Your task to perform on an android device: Do I have any events today? Image 0: 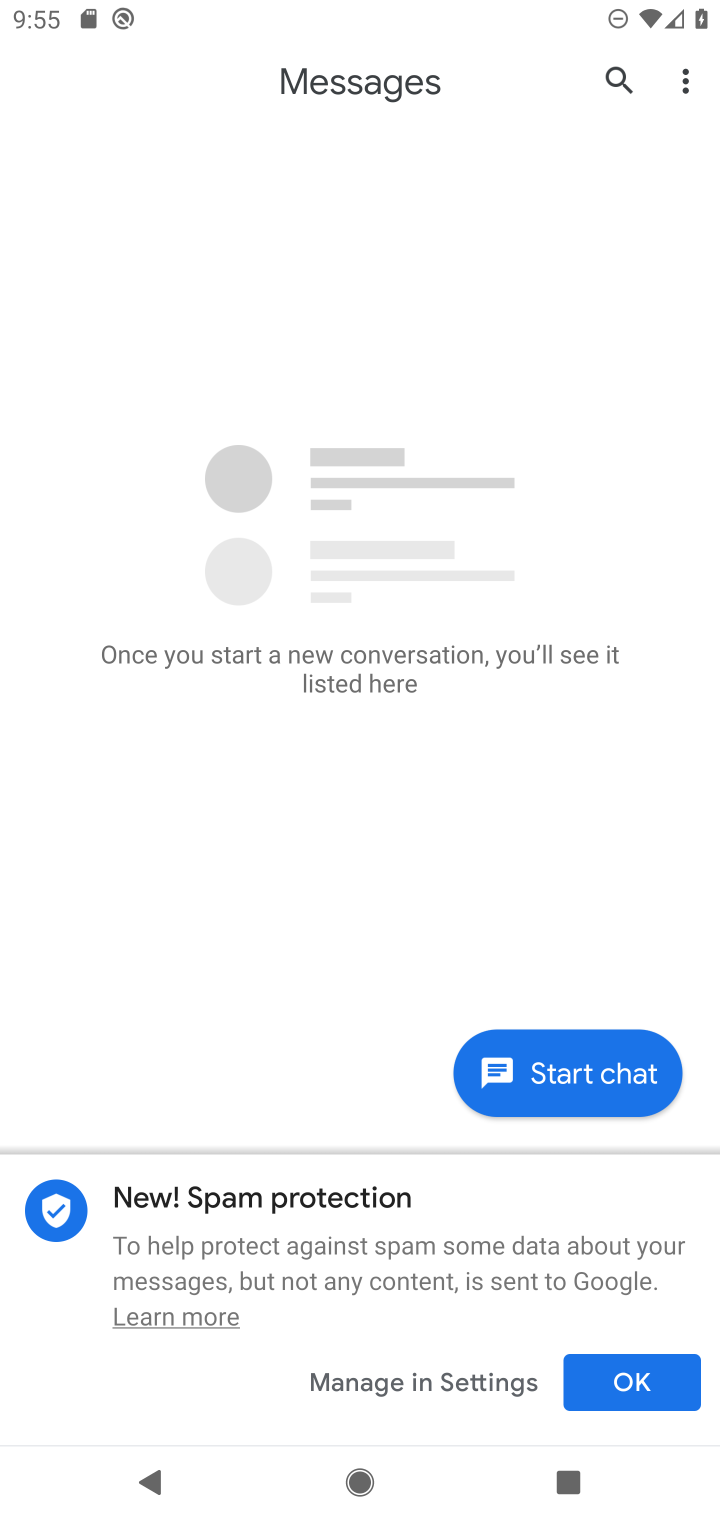
Step 0: press home button
Your task to perform on an android device: Do I have any events today? Image 1: 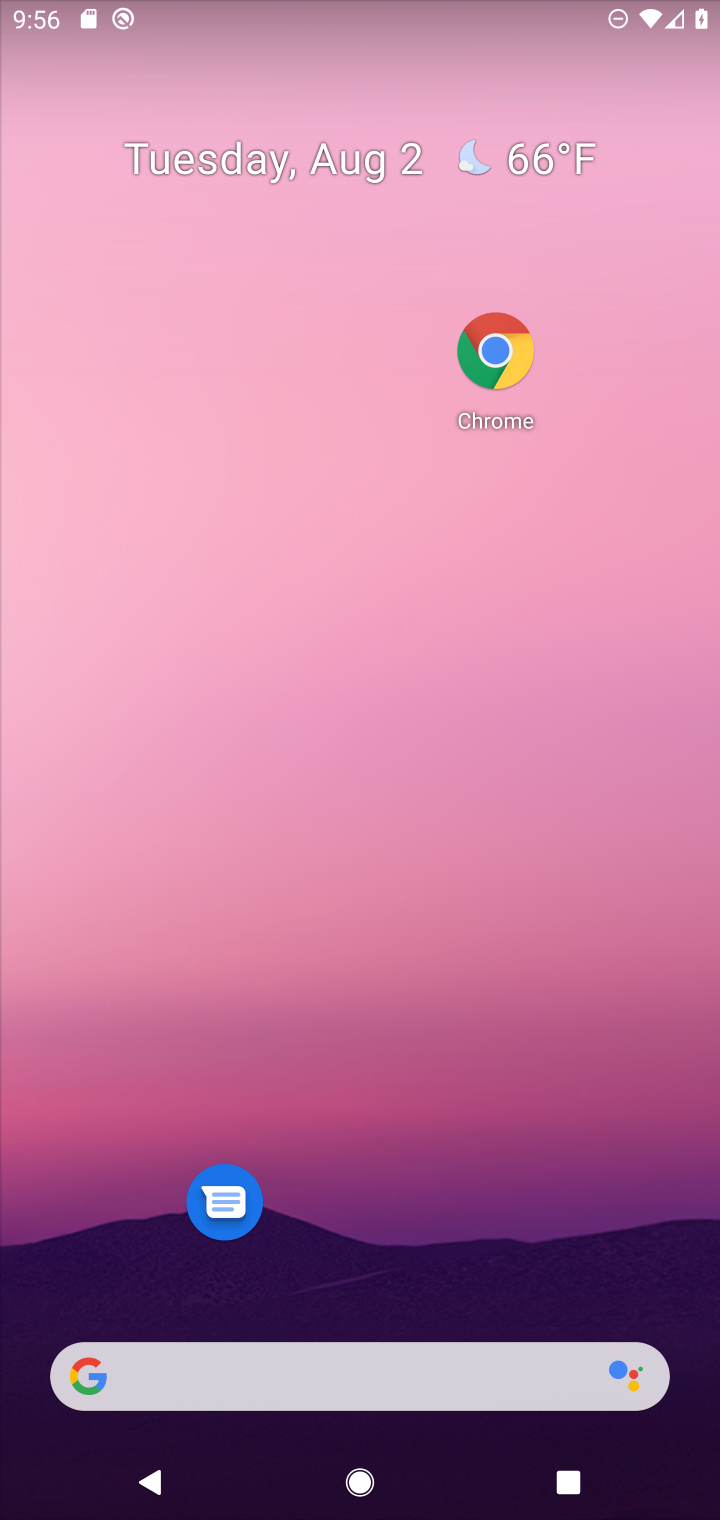
Step 1: drag from (383, 1290) to (472, 7)
Your task to perform on an android device: Do I have any events today? Image 2: 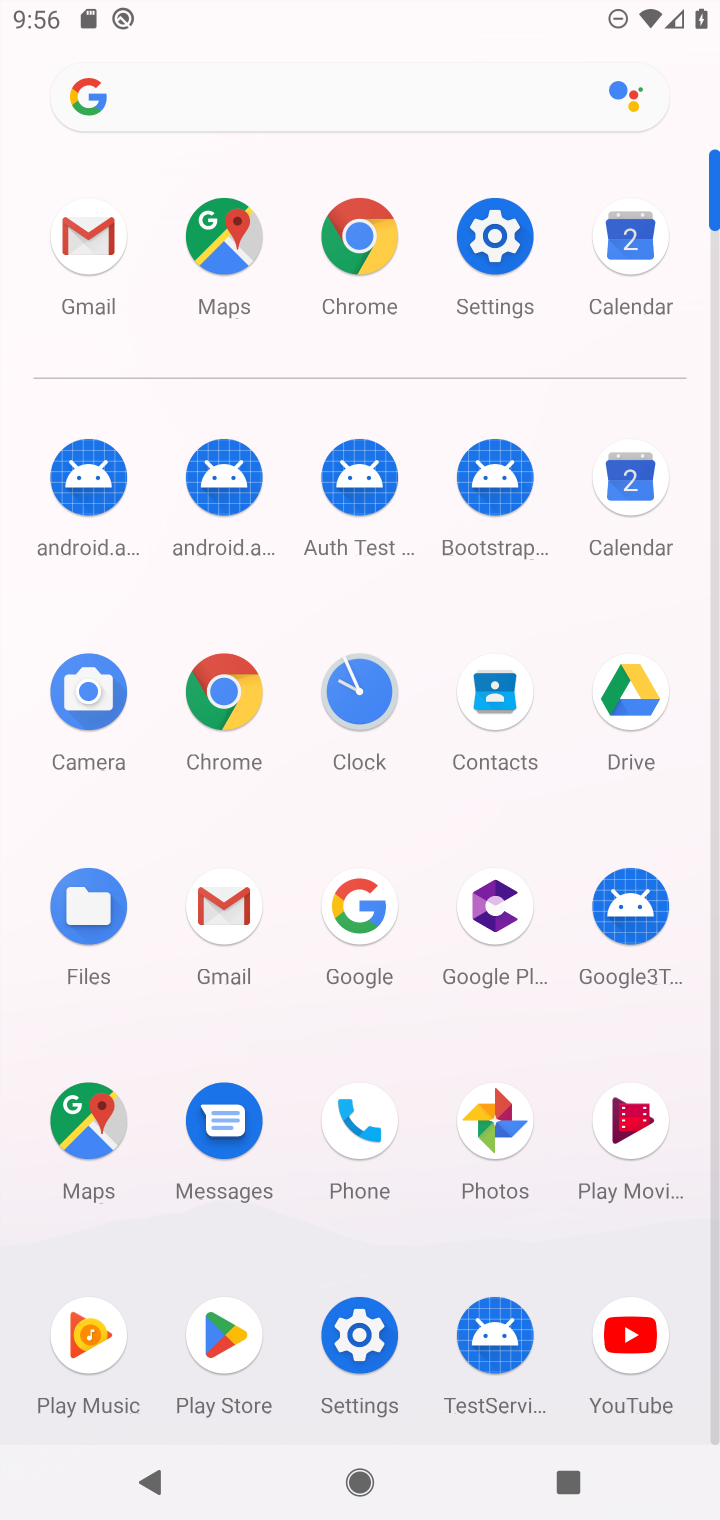
Step 2: click (631, 252)
Your task to perform on an android device: Do I have any events today? Image 3: 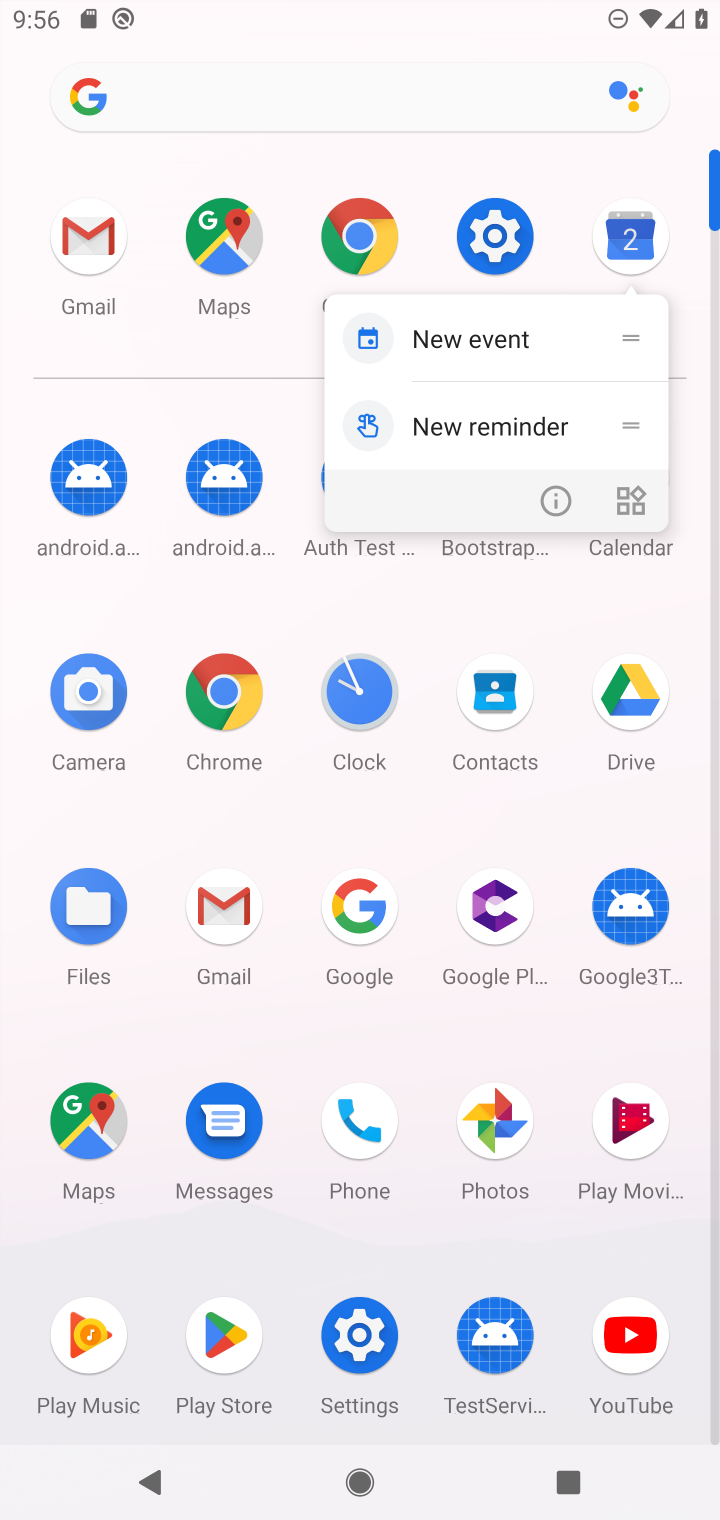
Step 3: click (631, 247)
Your task to perform on an android device: Do I have any events today? Image 4: 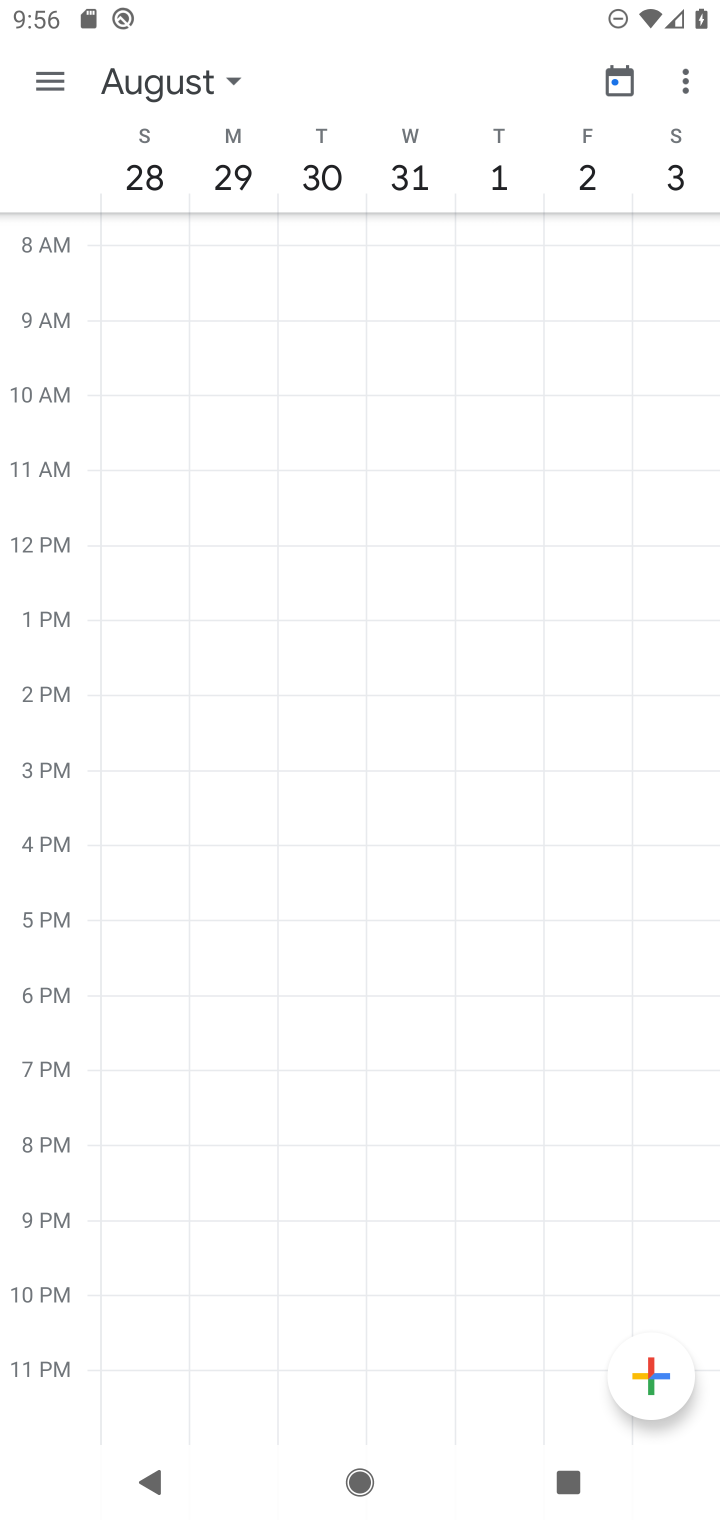
Step 4: click (228, 85)
Your task to perform on an android device: Do I have any events today? Image 5: 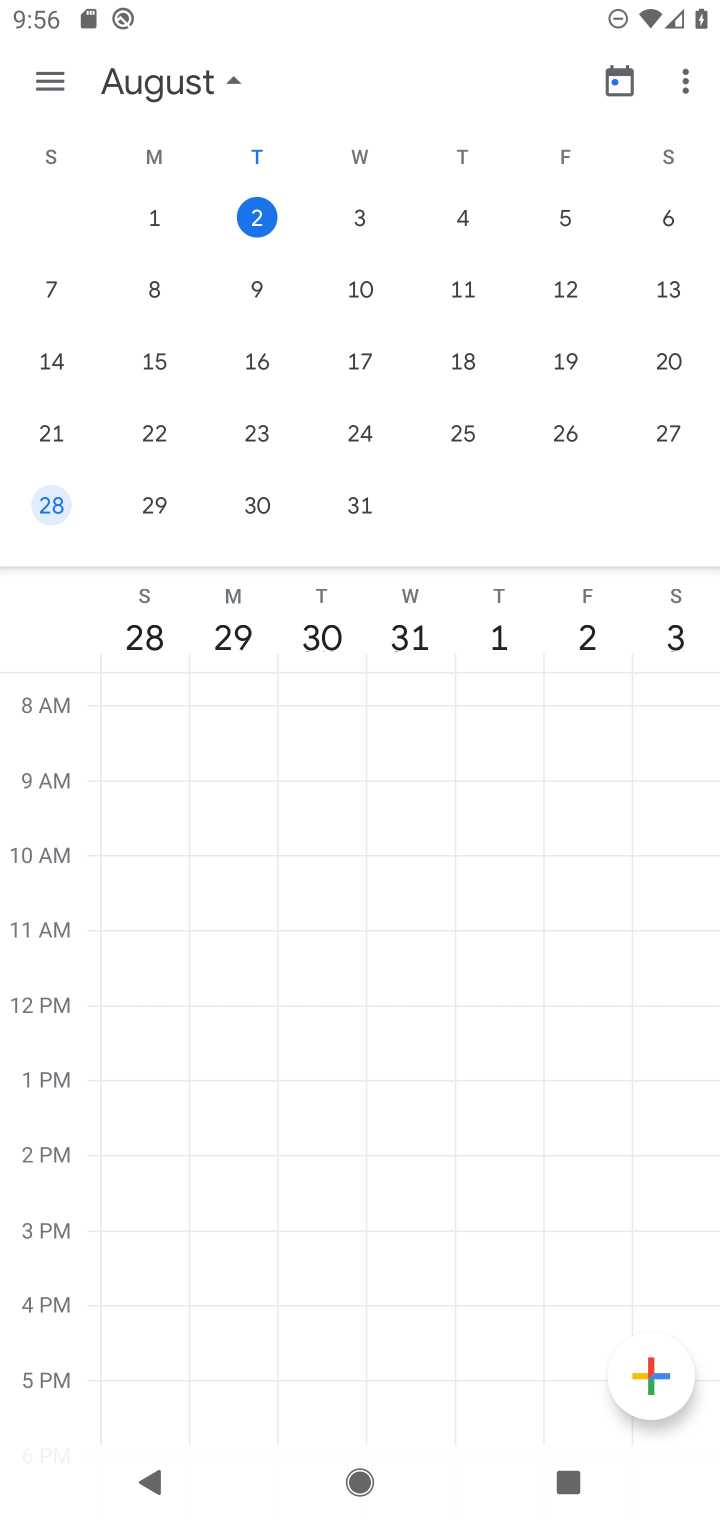
Step 5: click (245, 227)
Your task to perform on an android device: Do I have any events today? Image 6: 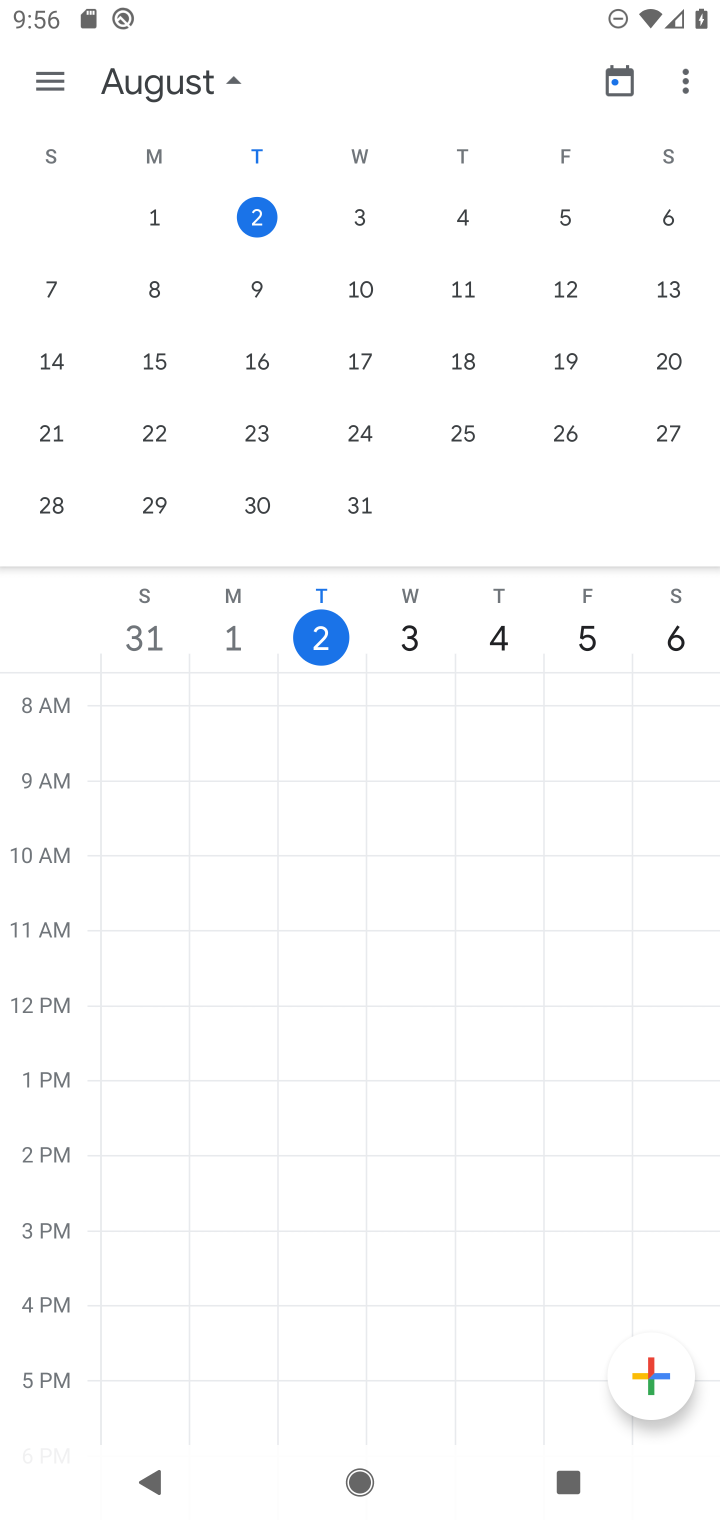
Step 6: click (252, 224)
Your task to perform on an android device: Do I have any events today? Image 7: 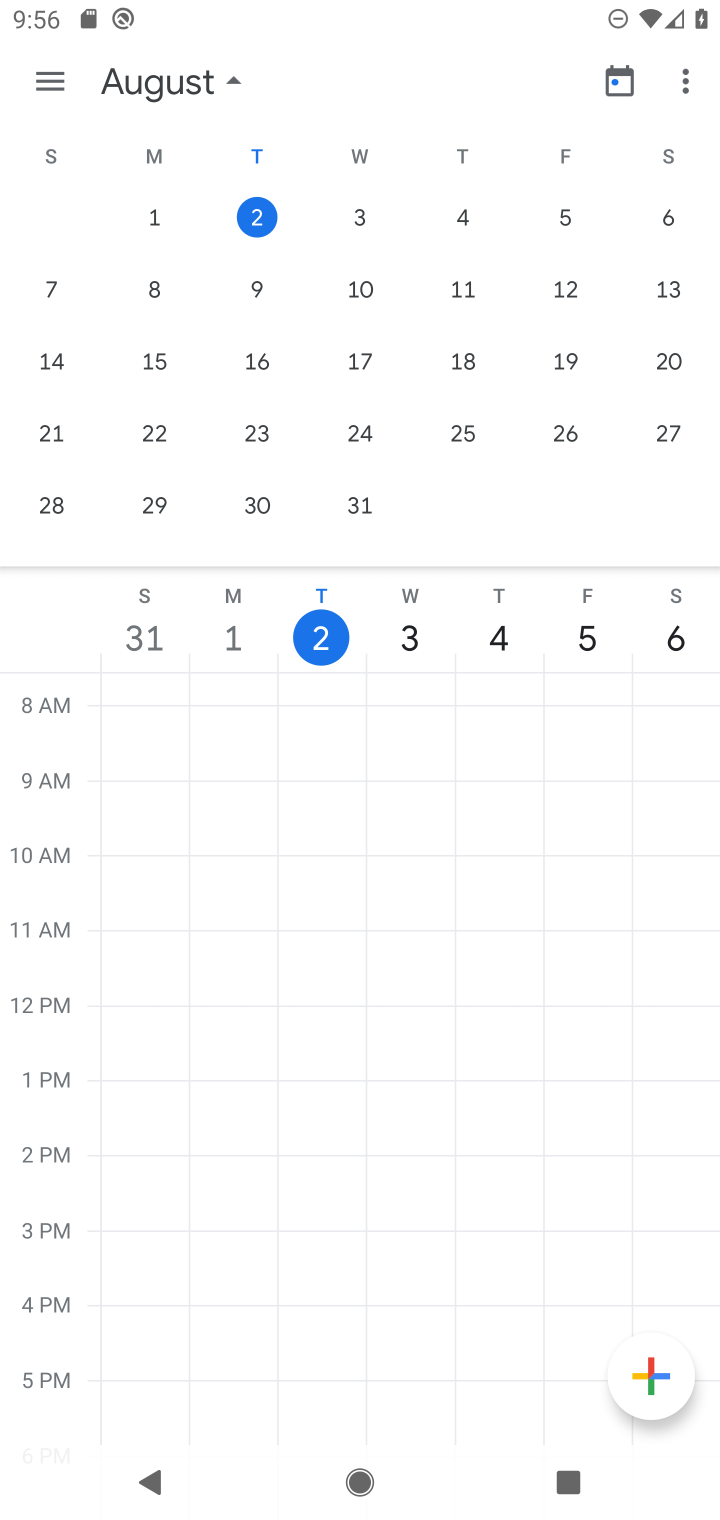
Step 7: click (49, 85)
Your task to perform on an android device: Do I have any events today? Image 8: 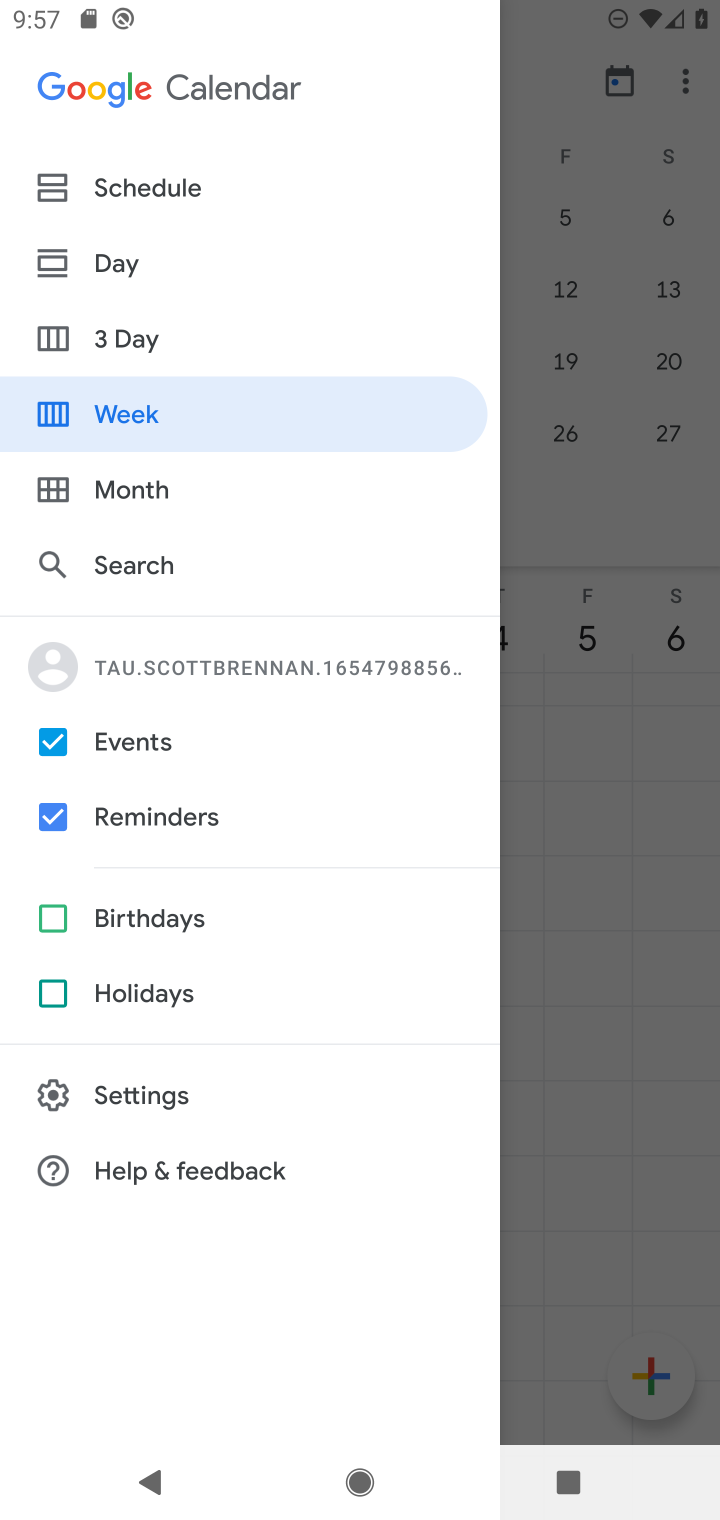
Step 8: click (99, 268)
Your task to perform on an android device: Do I have any events today? Image 9: 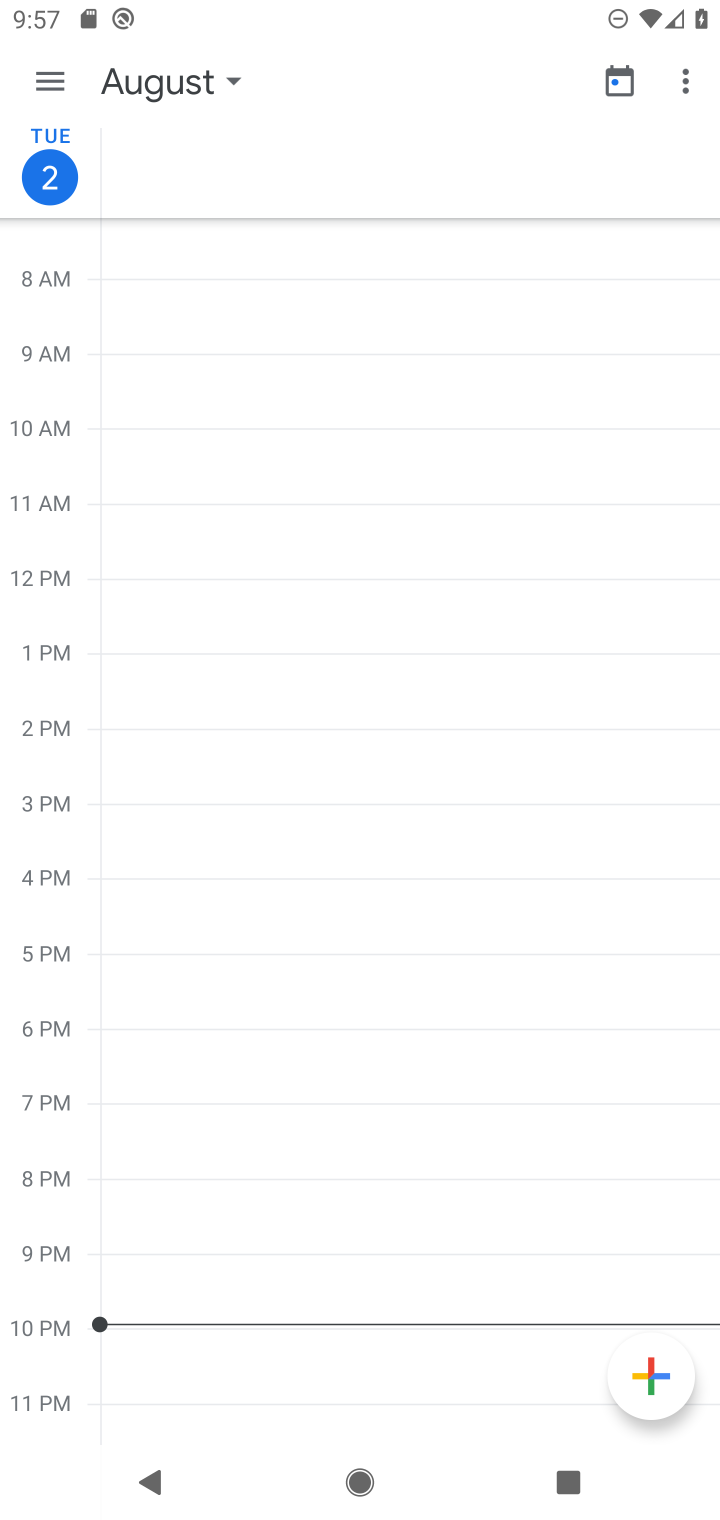
Step 9: task complete